Your task to perform on an android device: search for starred emails in the gmail app Image 0: 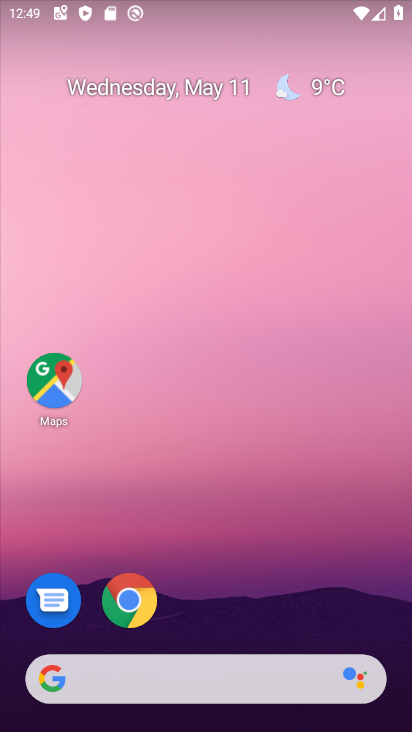
Step 0: drag from (184, 717) to (211, 0)
Your task to perform on an android device: search for starred emails in the gmail app Image 1: 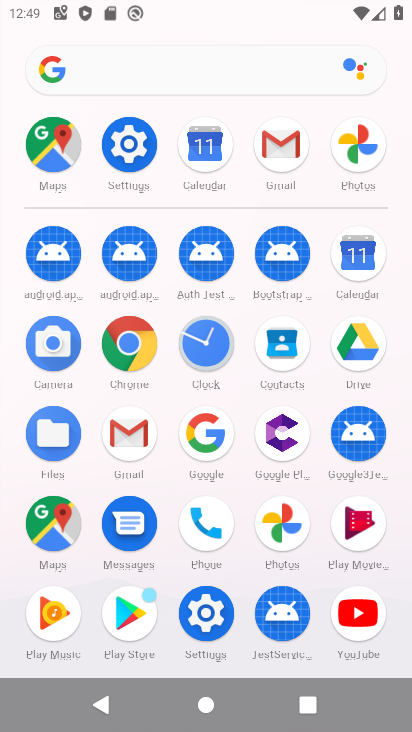
Step 1: click (292, 136)
Your task to perform on an android device: search for starred emails in the gmail app Image 2: 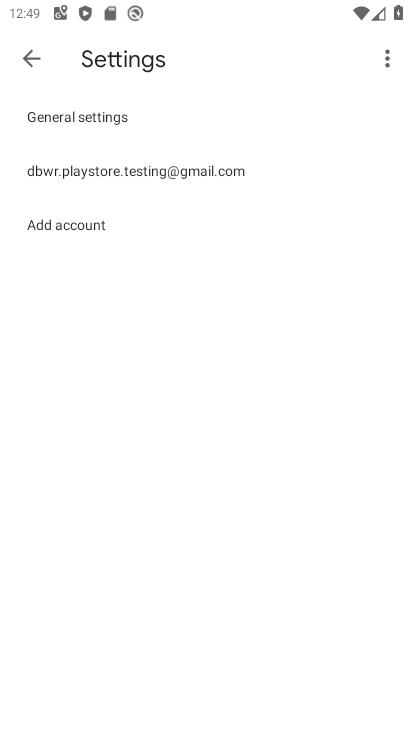
Step 2: click (78, 170)
Your task to perform on an android device: search for starred emails in the gmail app Image 3: 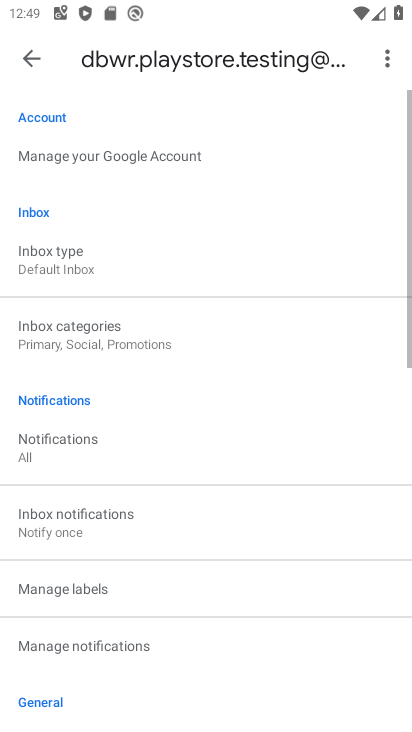
Step 3: click (33, 50)
Your task to perform on an android device: search for starred emails in the gmail app Image 4: 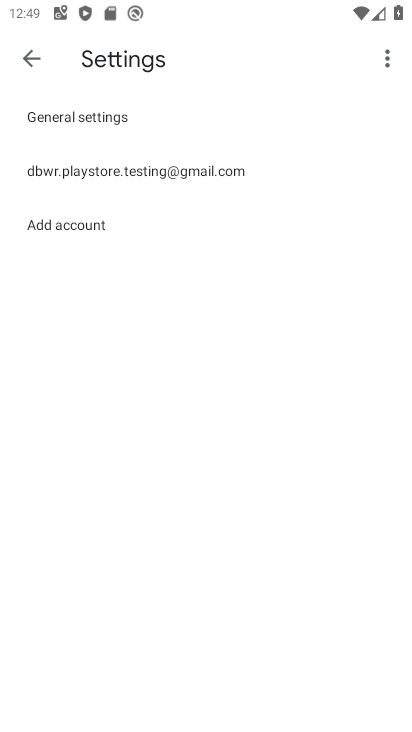
Step 4: click (33, 50)
Your task to perform on an android device: search for starred emails in the gmail app Image 5: 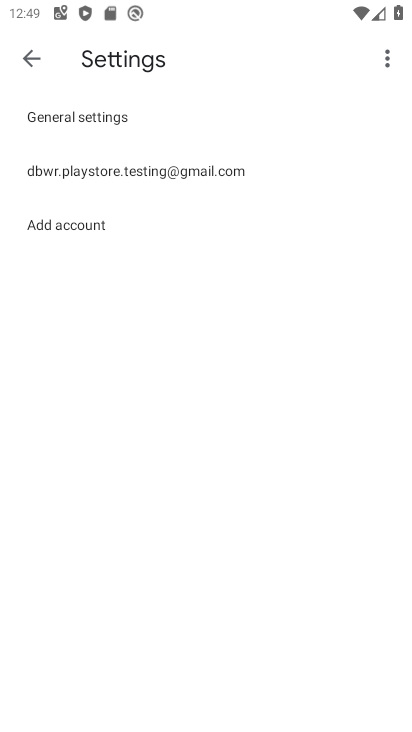
Step 5: click (36, 65)
Your task to perform on an android device: search for starred emails in the gmail app Image 6: 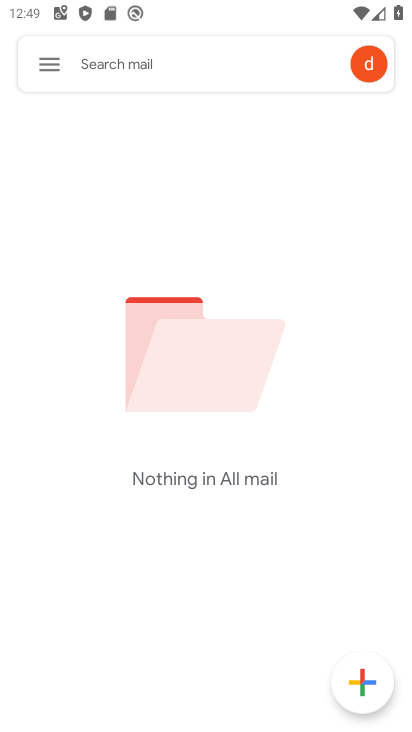
Step 6: click (43, 63)
Your task to perform on an android device: search for starred emails in the gmail app Image 7: 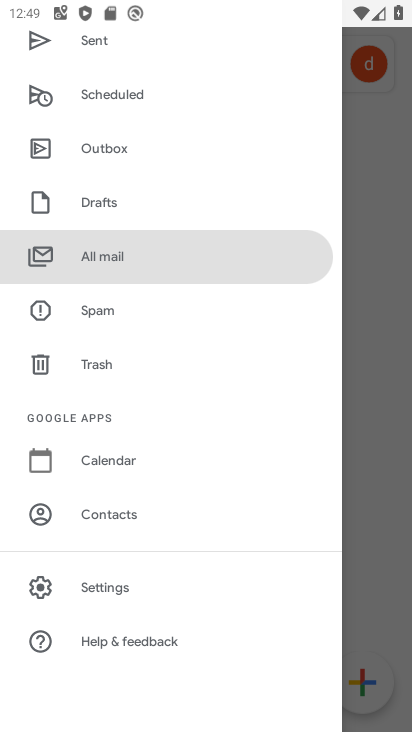
Step 7: drag from (232, 157) to (202, 656)
Your task to perform on an android device: search for starred emails in the gmail app Image 8: 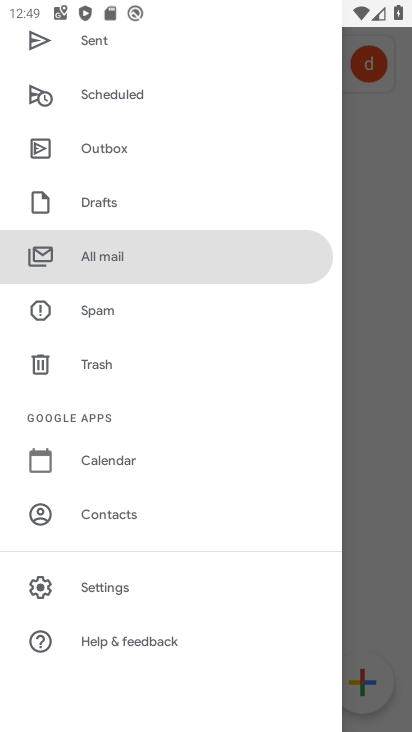
Step 8: drag from (167, 77) to (218, 551)
Your task to perform on an android device: search for starred emails in the gmail app Image 9: 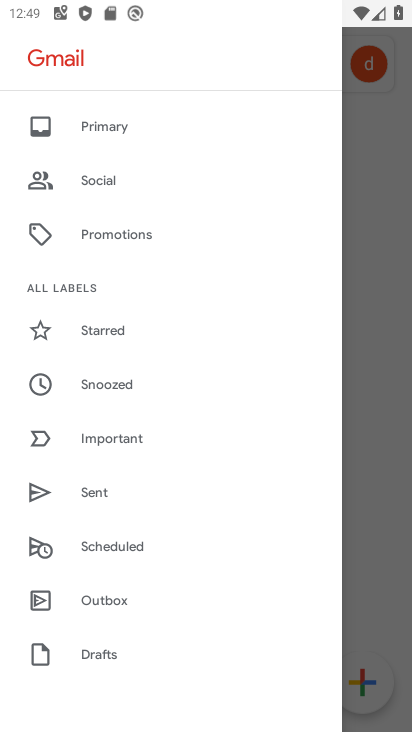
Step 9: click (115, 333)
Your task to perform on an android device: search for starred emails in the gmail app Image 10: 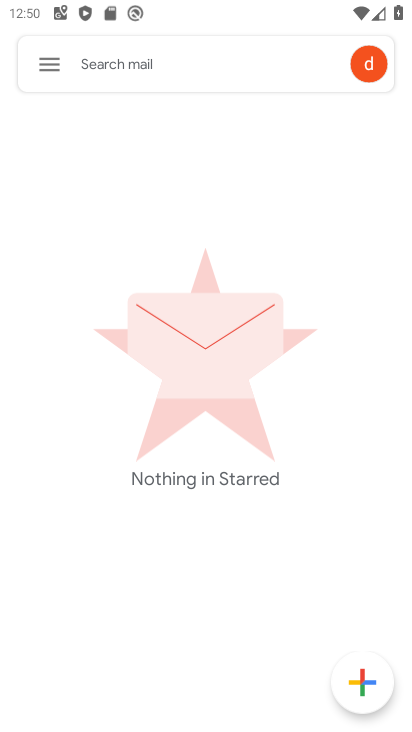
Step 10: task complete